Your task to perform on an android device: Open the stopwatch Image 0: 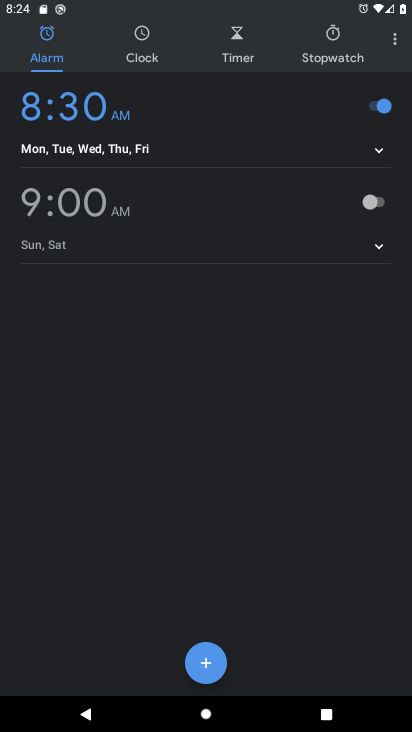
Step 0: click (344, 40)
Your task to perform on an android device: Open the stopwatch Image 1: 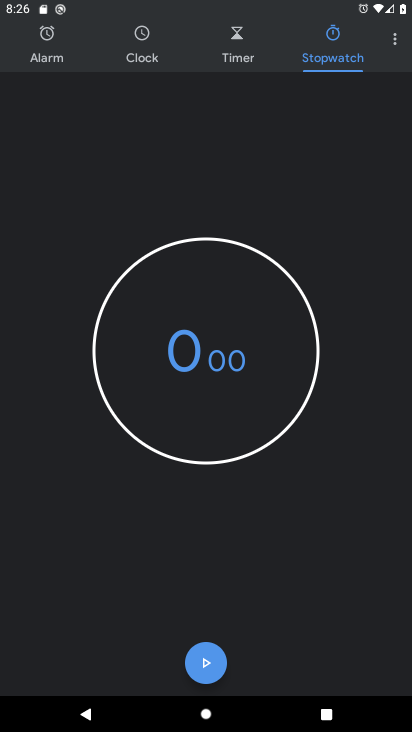
Step 1: task complete